Your task to perform on an android device: toggle sleep mode Image 0: 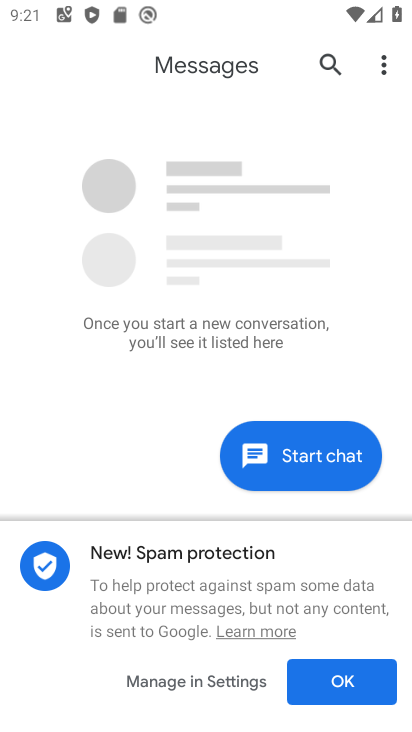
Step 0: press home button
Your task to perform on an android device: toggle sleep mode Image 1: 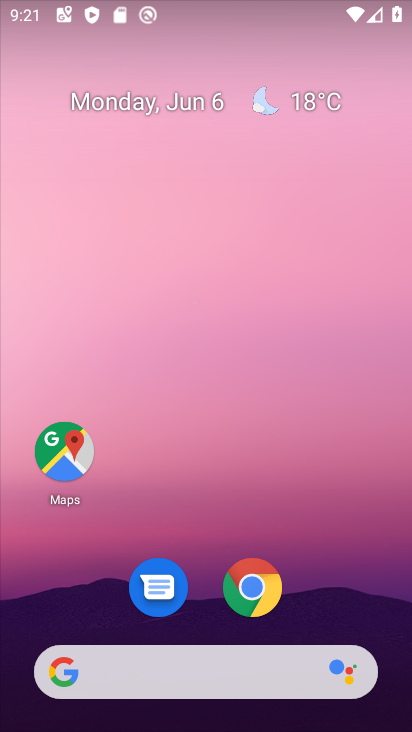
Step 1: drag from (312, 581) to (257, 50)
Your task to perform on an android device: toggle sleep mode Image 2: 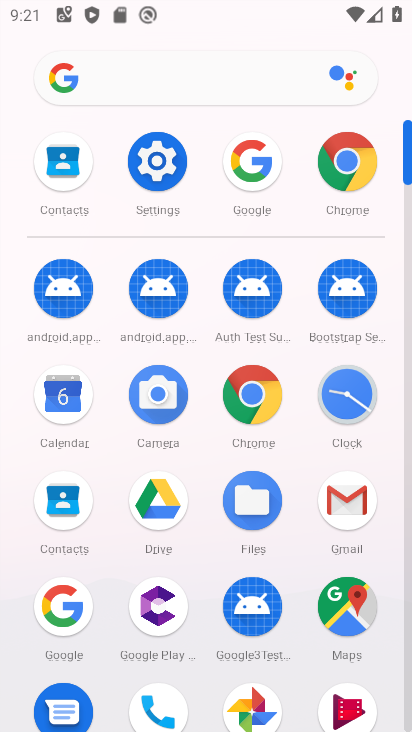
Step 2: click (154, 166)
Your task to perform on an android device: toggle sleep mode Image 3: 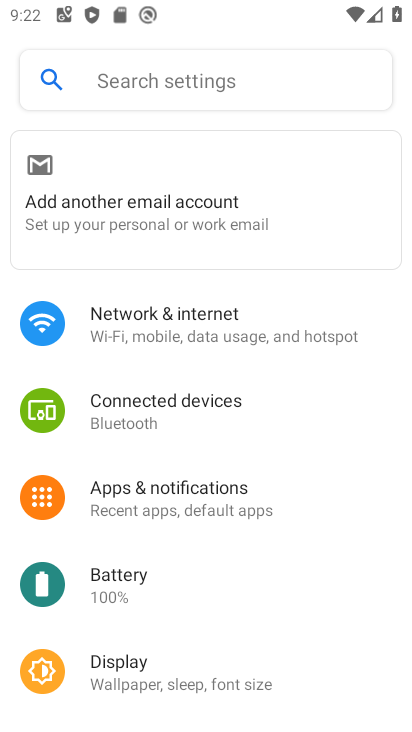
Step 3: click (157, 694)
Your task to perform on an android device: toggle sleep mode Image 4: 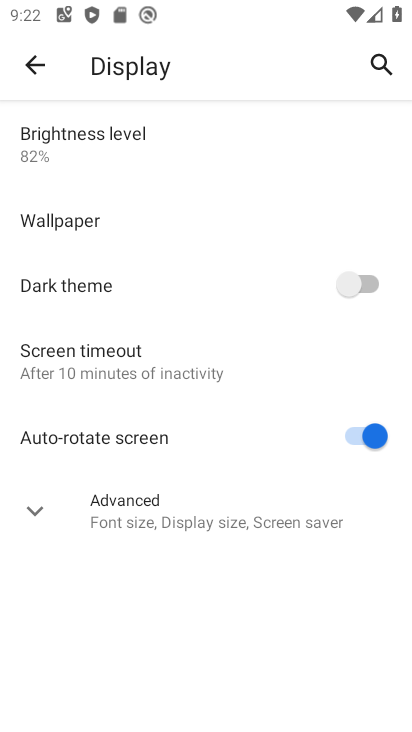
Step 4: click (96, 378)
Your task to perform on an android device: toggle sleep mode Image 5: 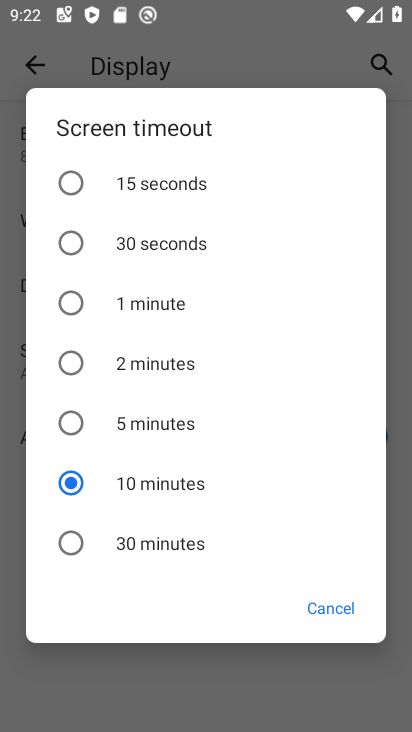
Step 5: click (132, 538)
Your task to perform on an android device: toggle sleep mode Image 6: 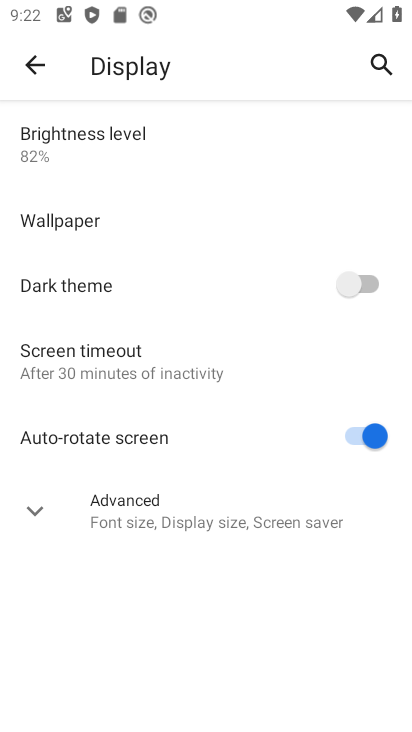
Step 6: task complete